Your task to perform on an android device: Go to Google maps Image 0: 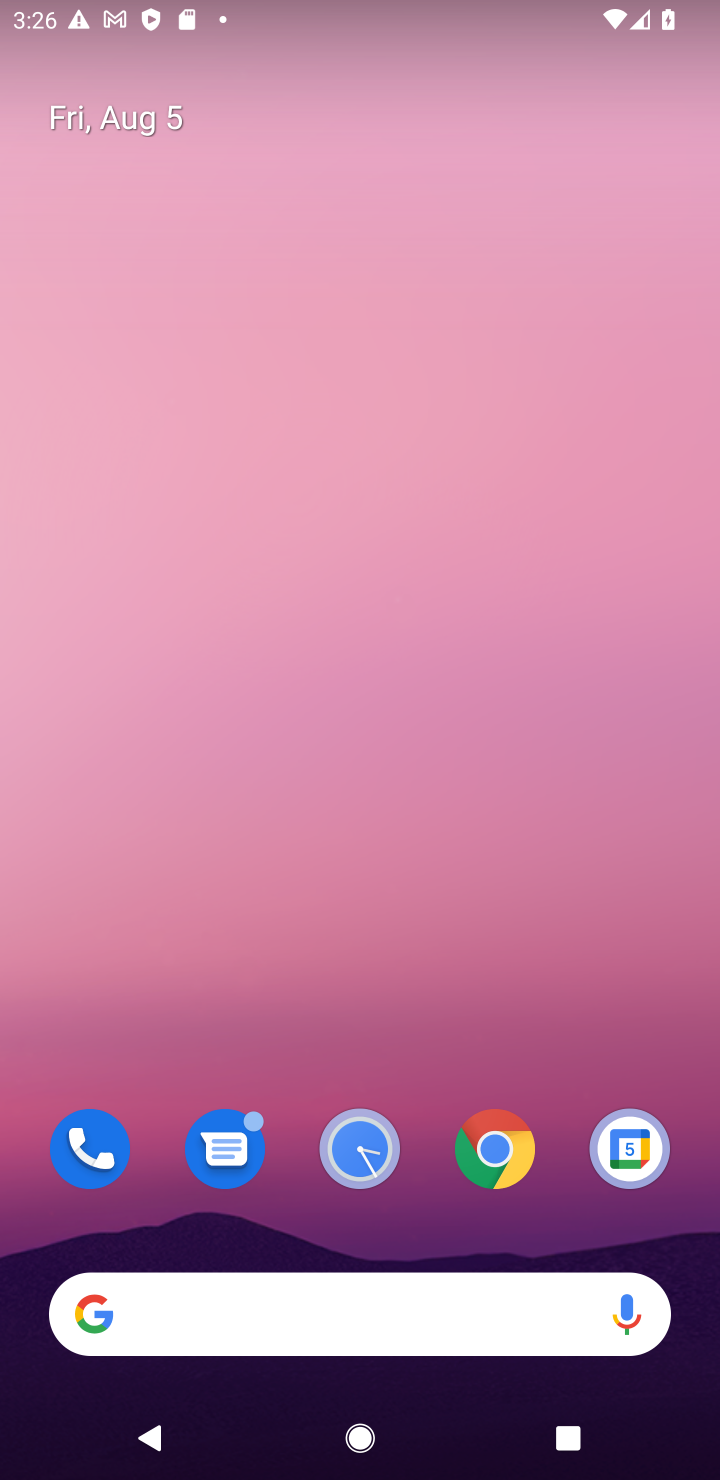
Step 0: drag from (400, 955) to (398, 238)
Your task to perform on an android device: Go to Google maps Image 1: 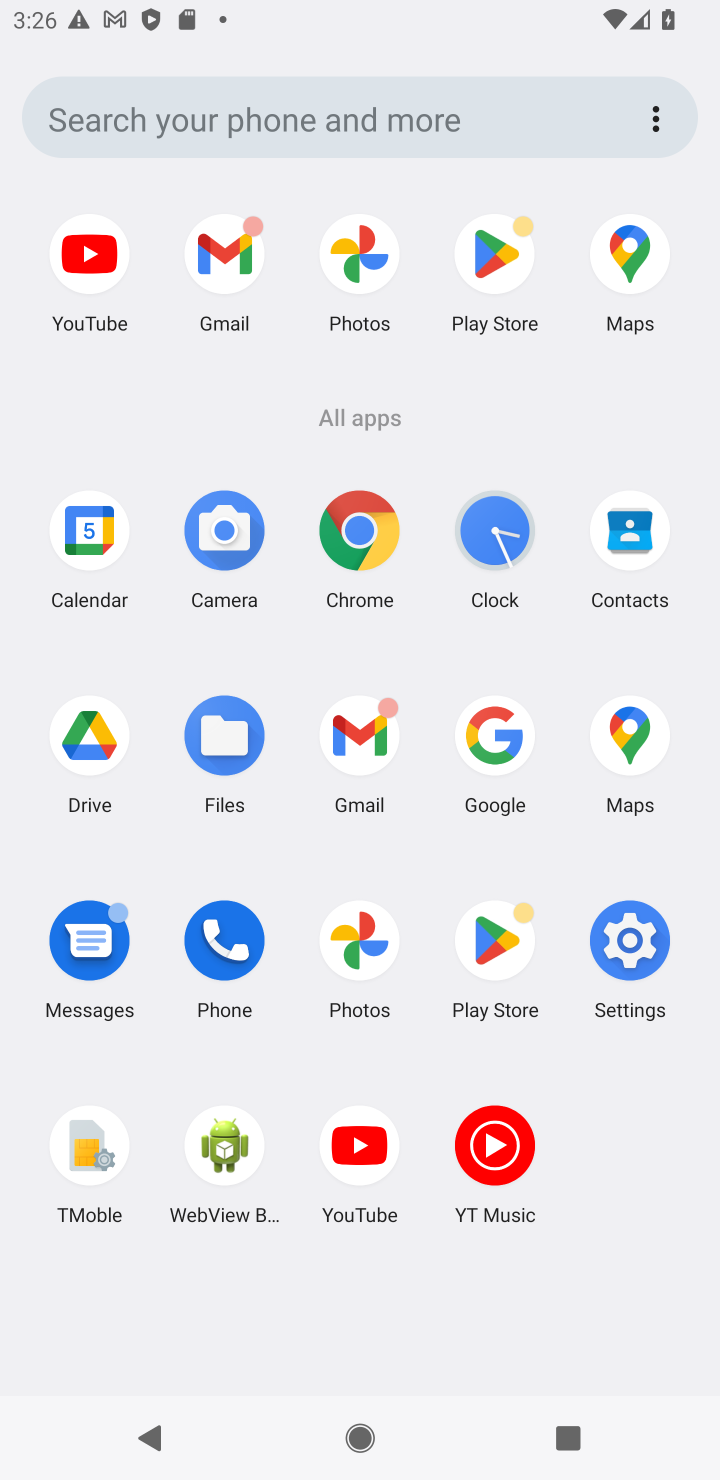
Step 1: click (635, 258)
Your task to perform on an android device: Go to Google maps Image 2: 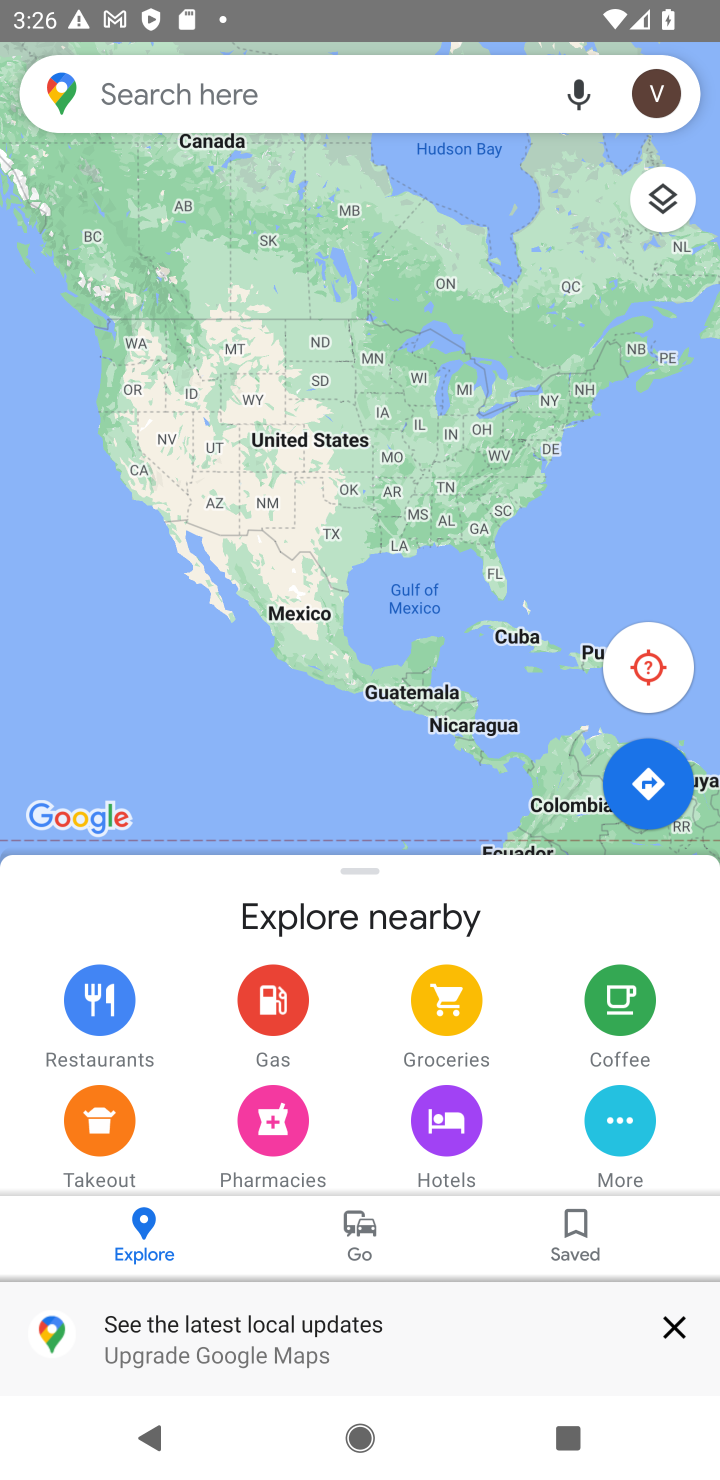
Step 2: task complete